Your task to perform on an android device: turn notification dots off Image 0: 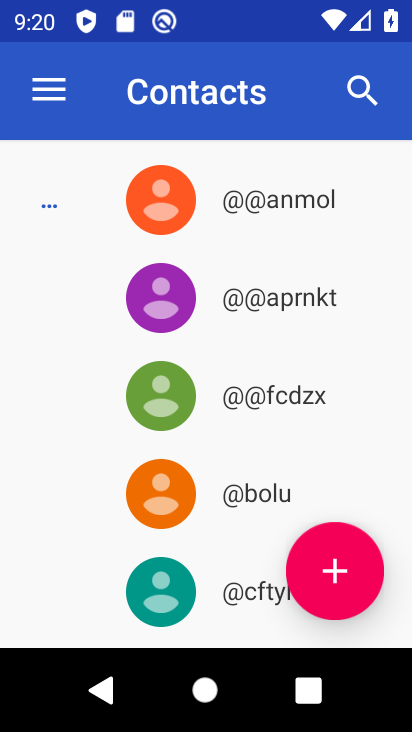
Step 0: press home button
Your task to perform on an android device: turn notification dots off Image 1: 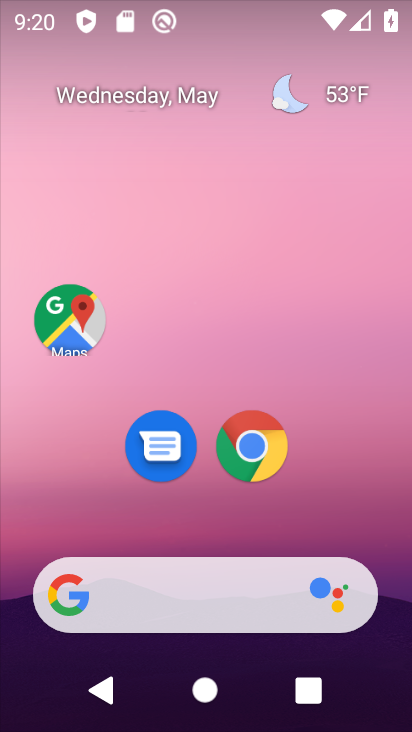
Step 1: drag from (357, 475) to (296, 149)
Your task to perform on an android device: turn notification dots off Image 2: 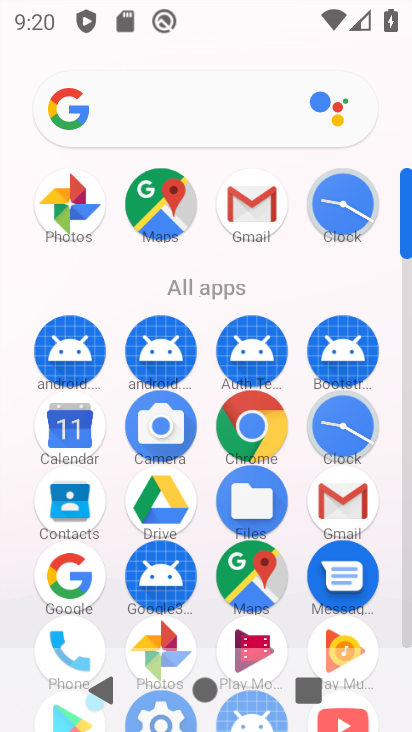
Step 2: drag from (291, 293) to (247, 60)
Your task to perform on an android device: turn notification dots off Image 3: 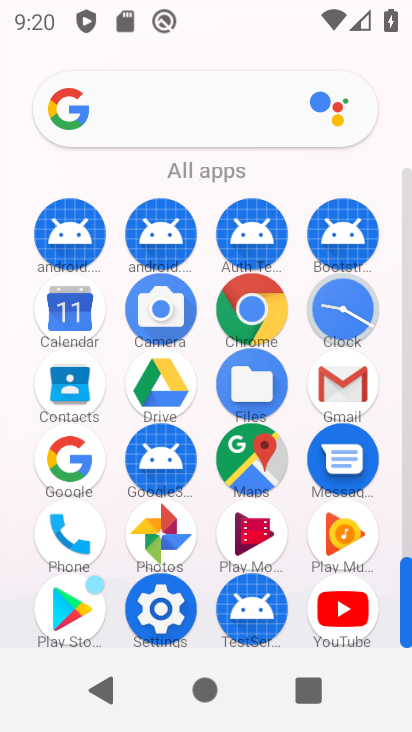
Step 3: click (176, 616)
Your task to perform on an android device: turn notification dots off Image 4: 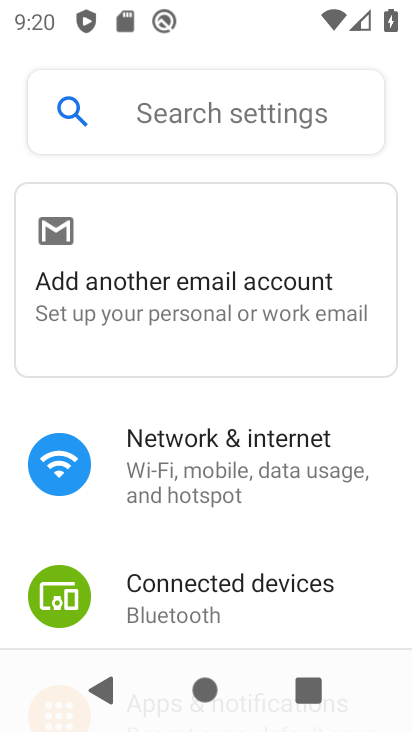
Step 4: drag from (308, 544) to (257, 316)
Your task to perform on an android device: turn notification dots off Image 5: 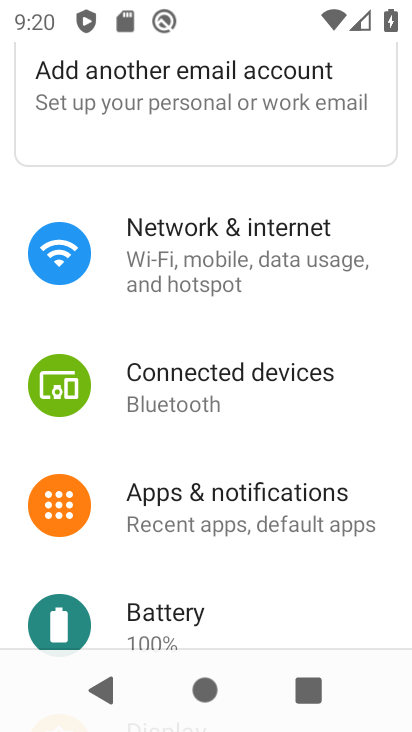
Step 5: drag from (306, 583) to (257, 384)
Your task to perform on an android device: turn notification dots off Image 6: 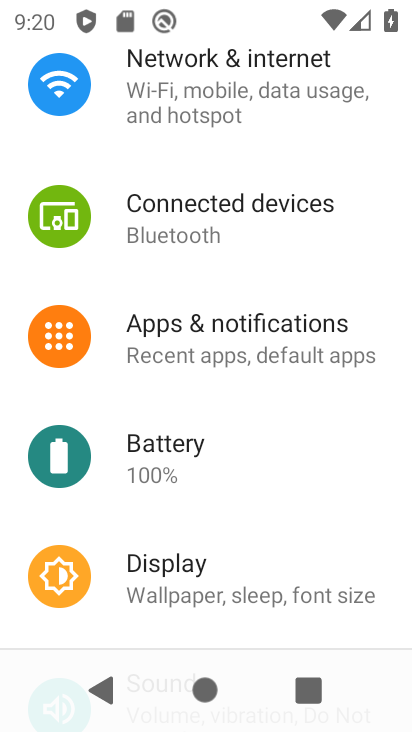
Step 6: click (214, 320)
Your task to perform on an android device: turn notification dots off Image 7: 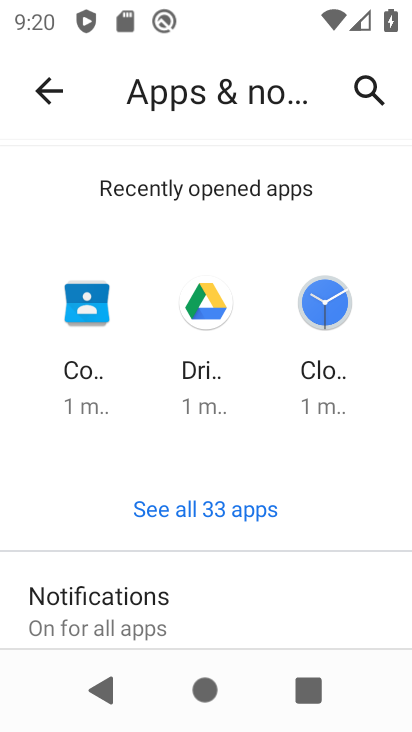
Step 7: drag from (270, 565) to (231, 344)
Your task to perform on an android device: turn notification dots off Image 8: 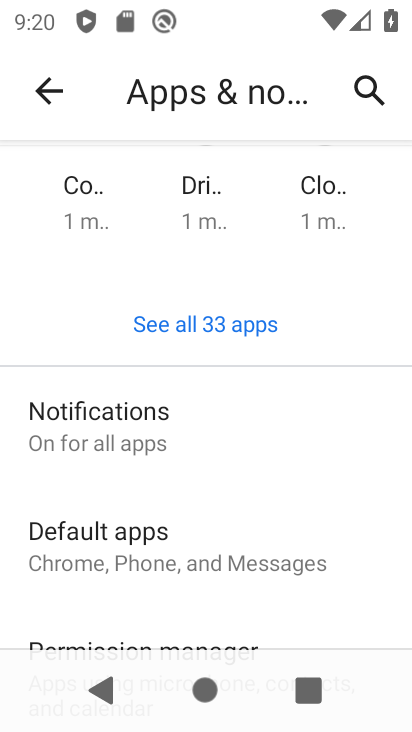
Step 8: click (133, 419)
Your task to perform on an android device: turn notification dots off Image 9: 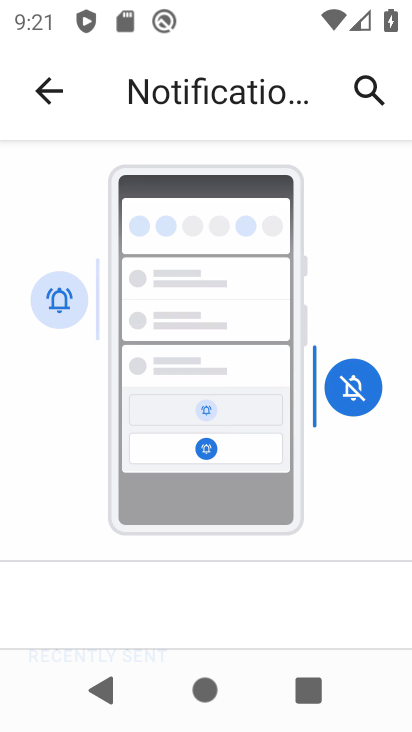
Step 9: drag from (279, 580) to (220, 338)
Your task to perform on an android device: turn notification dots off Image 10: 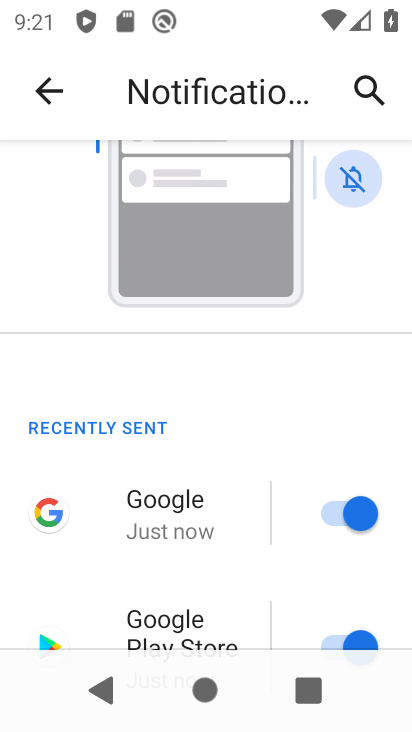
Step 10: drag from (260, 587) to (204, 274)
Your task to perform on an android device: turn notification dots off Image 11: 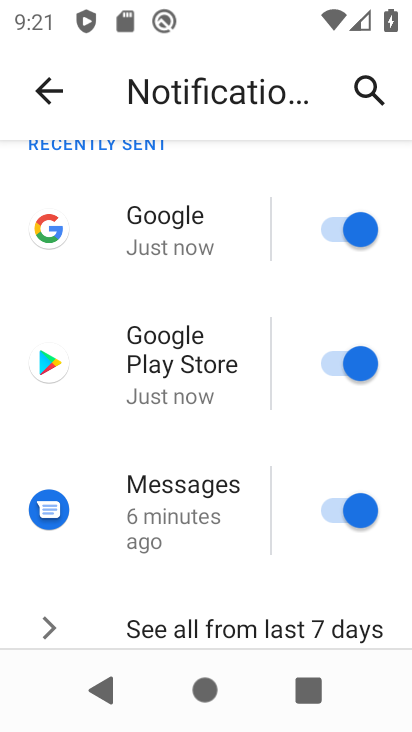
Step 11: drag from (247, 553) to (183, 172)
Your task to perform on an android device: turn notification dots off Image 12: 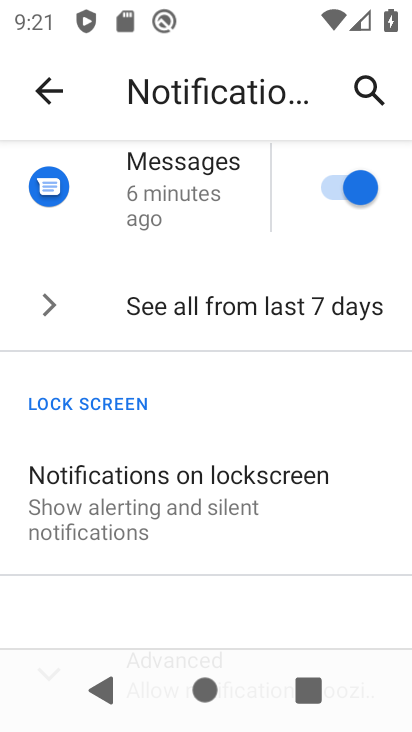
Step 12: drag from (201, 536) to (179, 316)
Your task to perform on an android device: turn notification dots off Image 13: 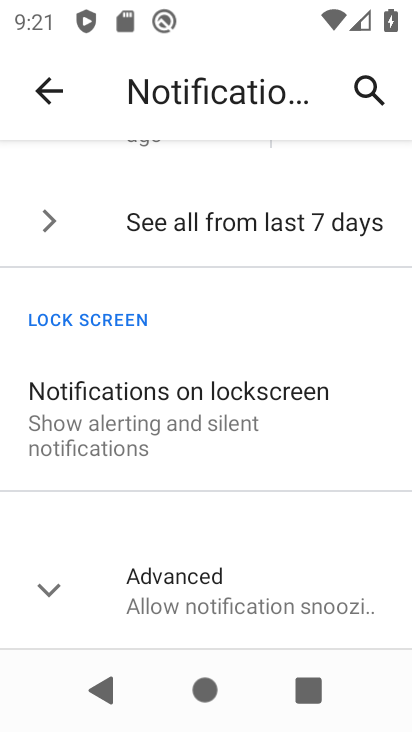
Step 13: click (222, 575)
Your task to perform on an android device: turn notification dots off Image 14: 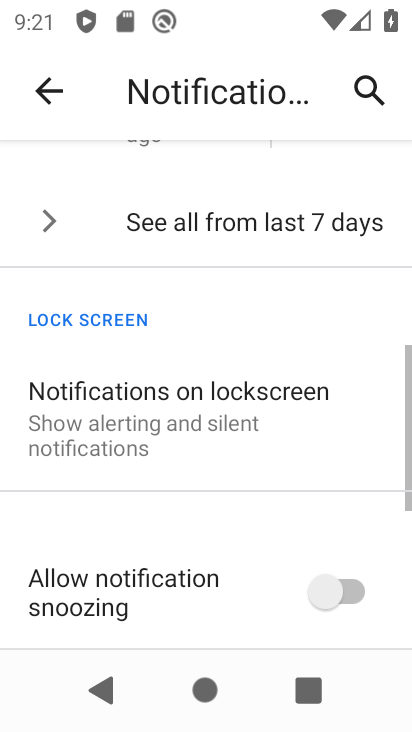
Step 14: drag from (222, 575) to (186, 323)
Your task to perform on an android device: turn notification dots off Image 15: 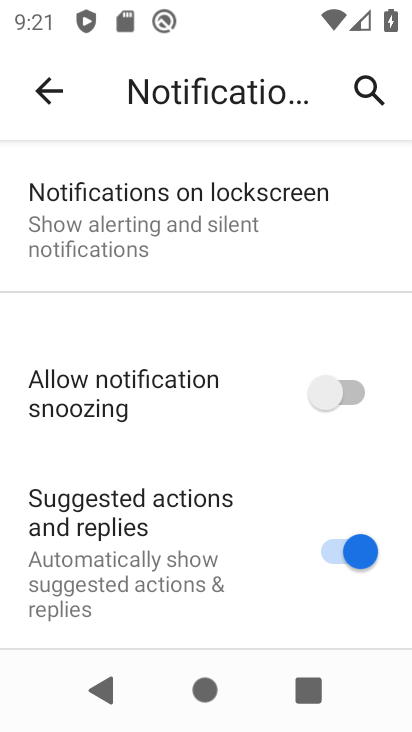
Step 15: drag from (327, 528) to (300, 297)
Your task to perform on an android device: turn notification dots off Image 16: 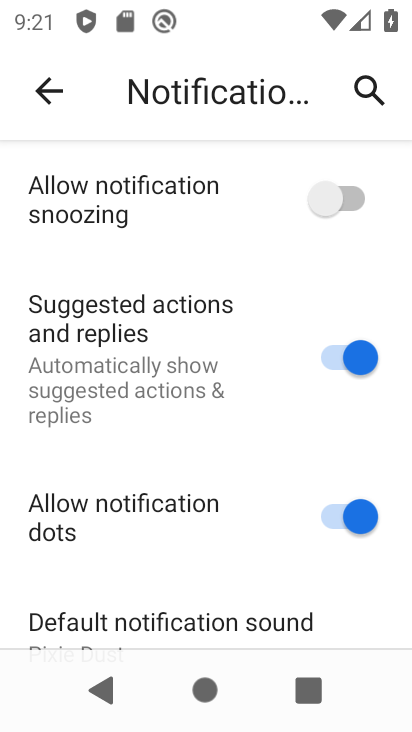
Step 16: click (348, 529)
Your task to perform on an android device: turn notification dots off Image 17: 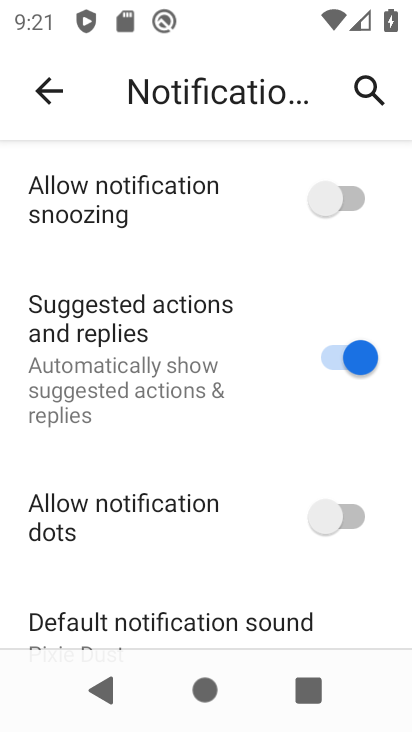
Step 17: task complete